Your task to perform on an android device: turn off sleep mode Image 0: 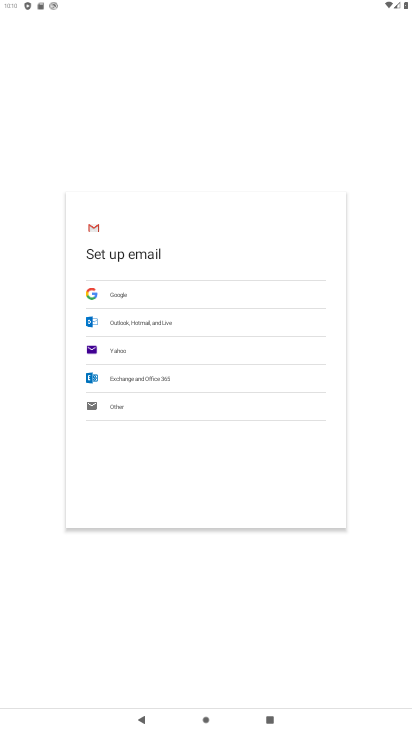
Step 0: press home button
Your task to perform on an android device: turn off sleep mode Image 1: 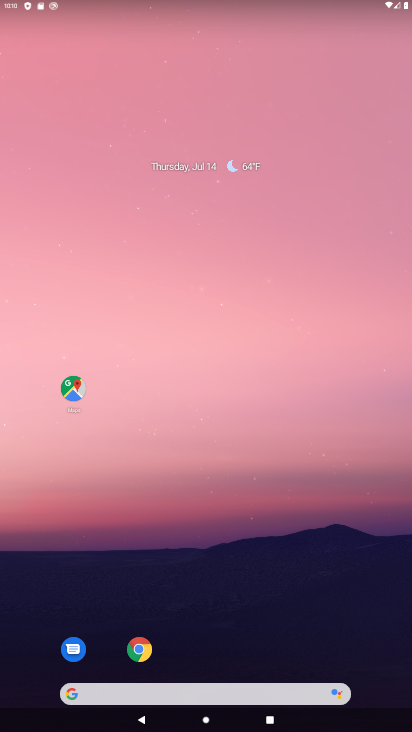
Step 1: drag from (240, 602) to (263, 69)
Your task to perform on an android device: turn off sleep mode Image 2: 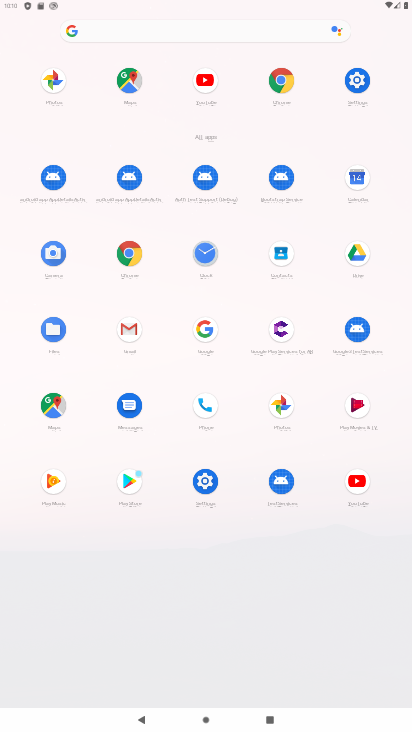
Step 2: click (204, 477)
Your task to perform on an android device: turn off sleep mode Image 3: 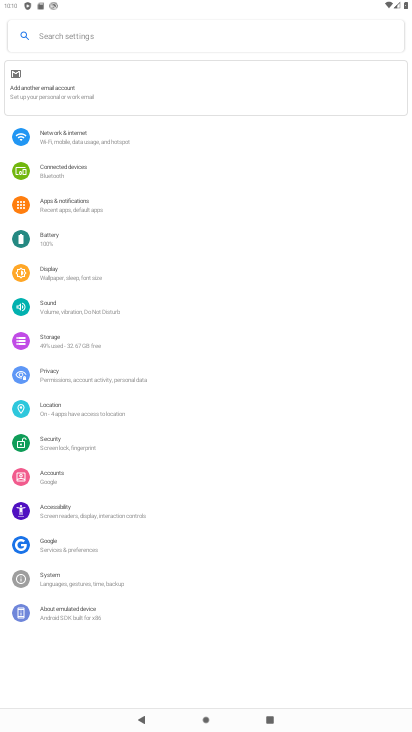
Step 3: task complete